Your task to perform on an android device: change the upload size in google photos Image 0: 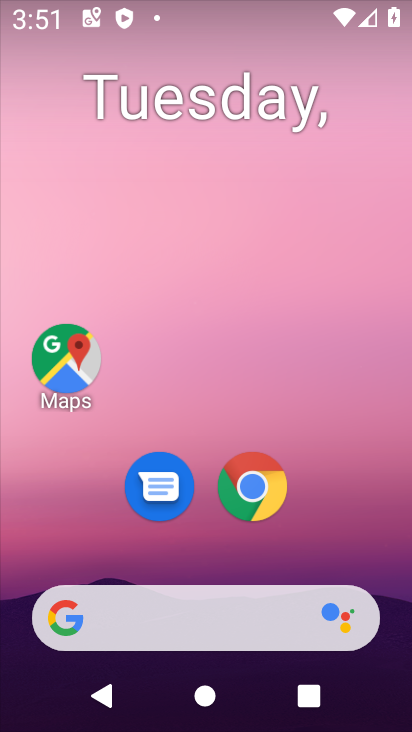
Step 0: drag from (180, 534) to (290, 5)
Your task to perform on an android device: change the upload size in google photos Image 1: 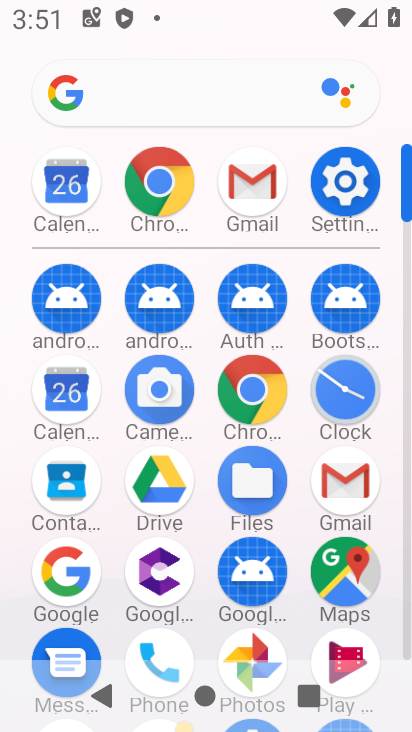
Step 1: click (247, 643)
Your task to perform on an android device: change the upload size in google photos Image 2: 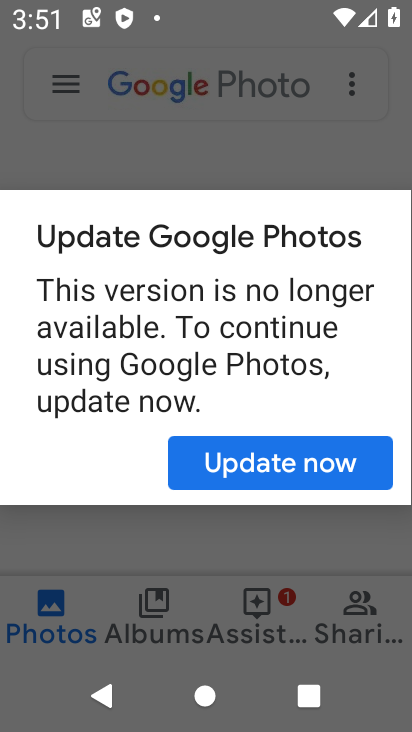
Step 2: click (282, 457)
Your task to perform on an android device: change the upload size in google photos Image 3: 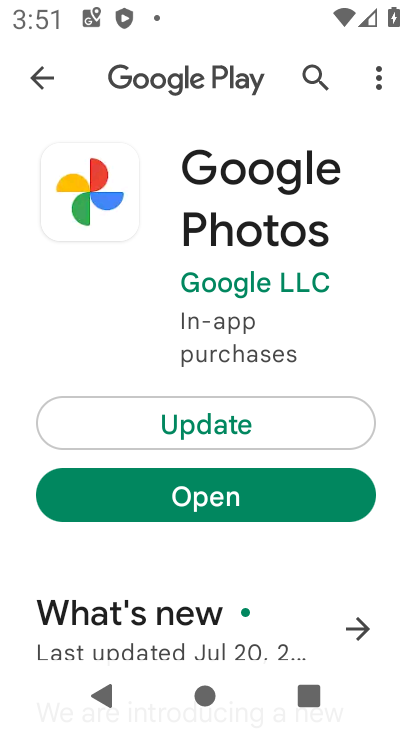
Step 3: click (189, 498)
Your task to perform on an android device: change the upload size in google photos Image 4: 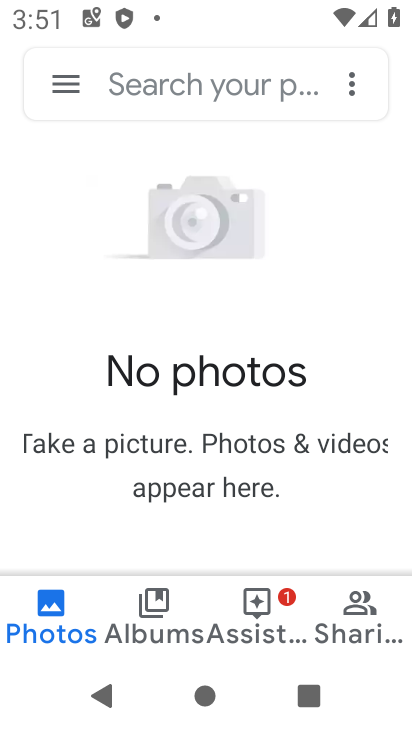
Step 4: click (59, 78)
Your task to perform on an android device: change the upload size in google photos Image 5: 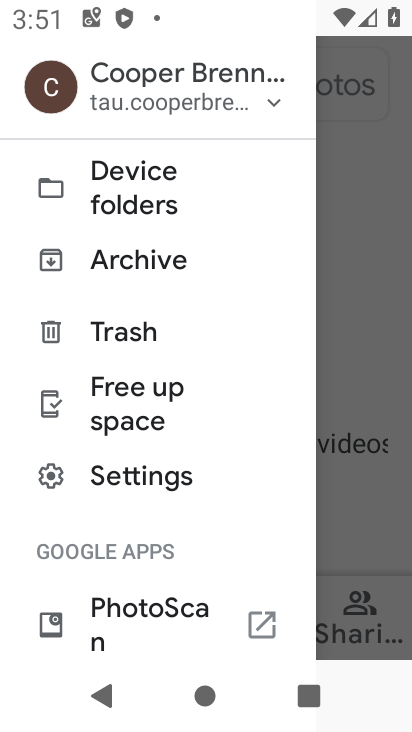
Step 5: click (127, 461)
Your task to perform on an android device: change the upload size in google photos Image 6: 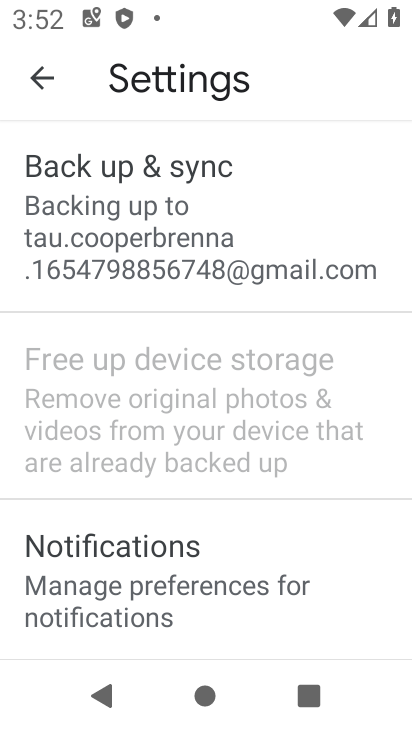
Step 6: click (200, 195)
Your task to perform on an android device: change the upload size in google photos Image 7: 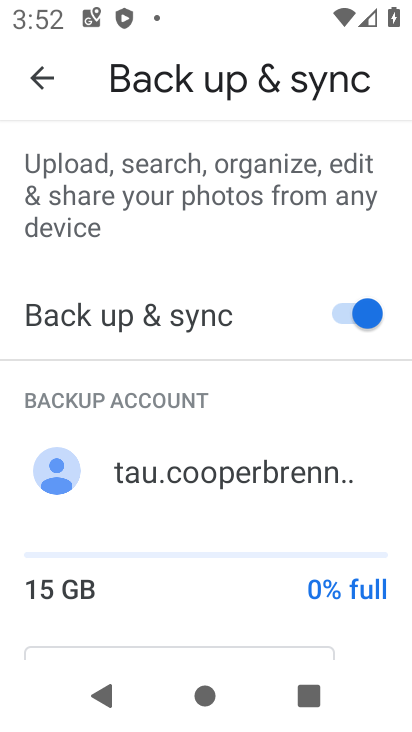
Step 7: drag from (189, 566) to (189, 89)
Your task to perform on an android device: change the upload size in google photos Image 8: 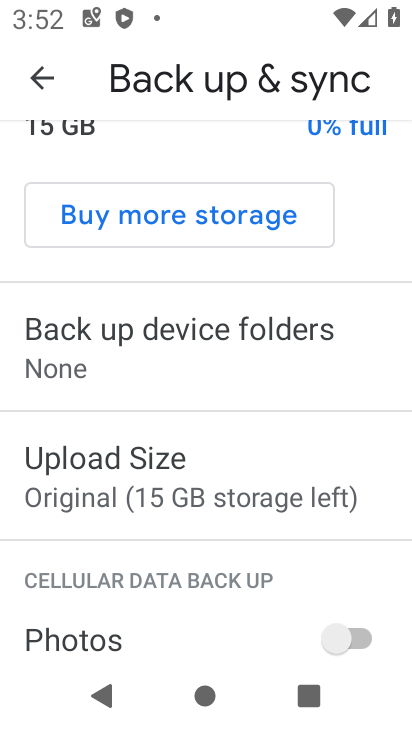
Step 8: click (175, 485)
Your task to perform on an android device: change the upload size in google photos Image 9: 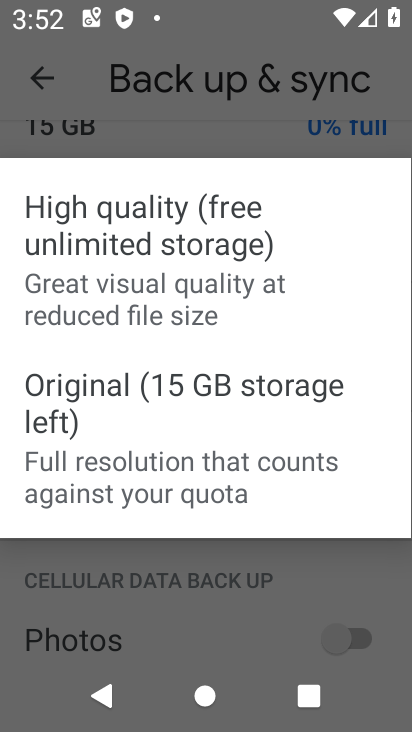
Step 9: click (120, 262)
Your task to perform on an android device: change the upload size in google photos Image 10: 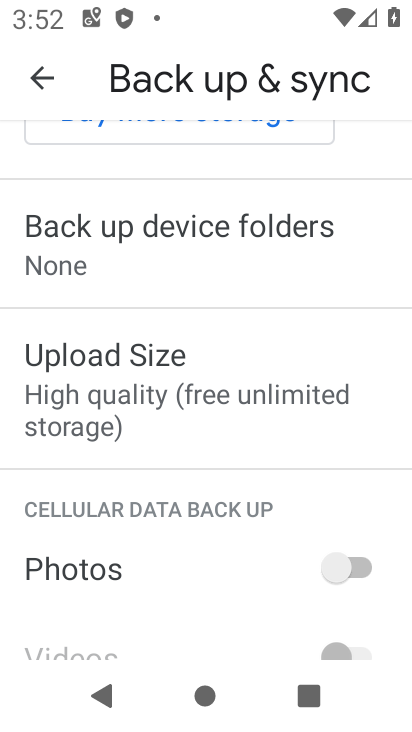
Step 10: task complete